Your task to perform on an android device: turn notification dots on Image 0: 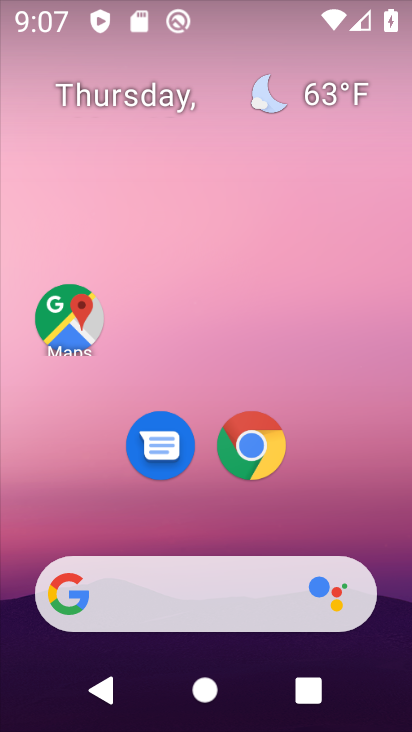
Step 0: drag from (177, 534) to (276, 46)
Your task to perform on an android device: turn notification dots on Image 1: 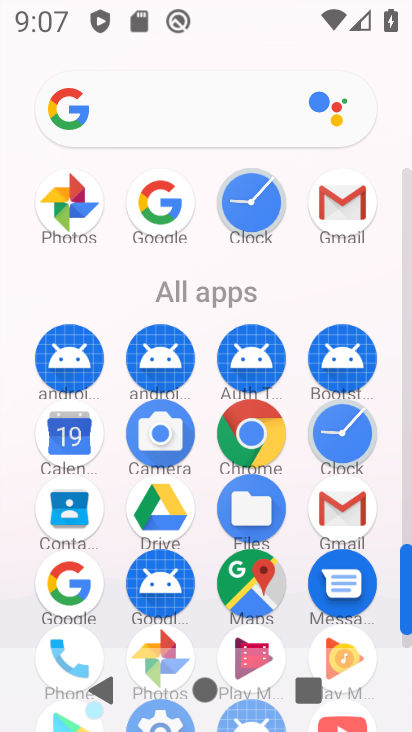
Step 1: drag from (194, 309) to (191, 148)
Your task to perform on an android device: turn notification dots on Image 2: 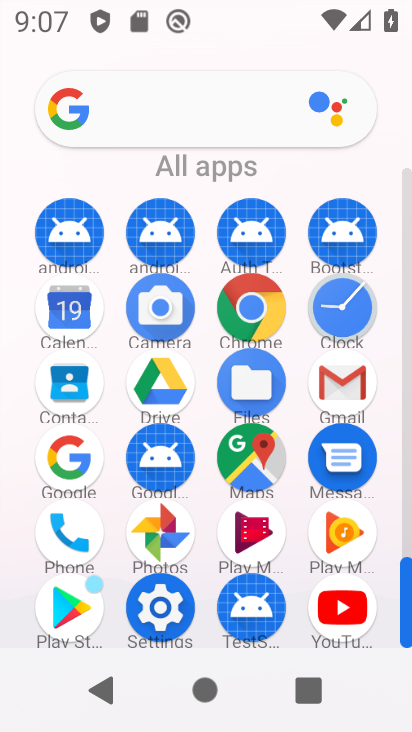
Step 2: click (155, 632)
Your task to perform on an android device: turn notification dots on Image 3: 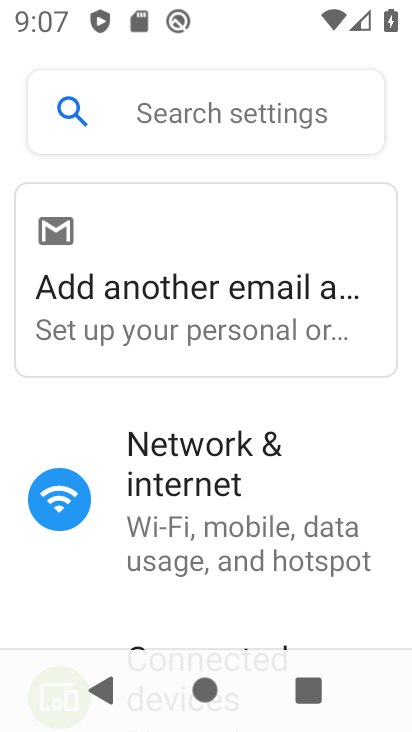
Step 3: drag from (221, 534) to (238, 128)
Your task to perform on an android device: turn notification dots on Image 4: 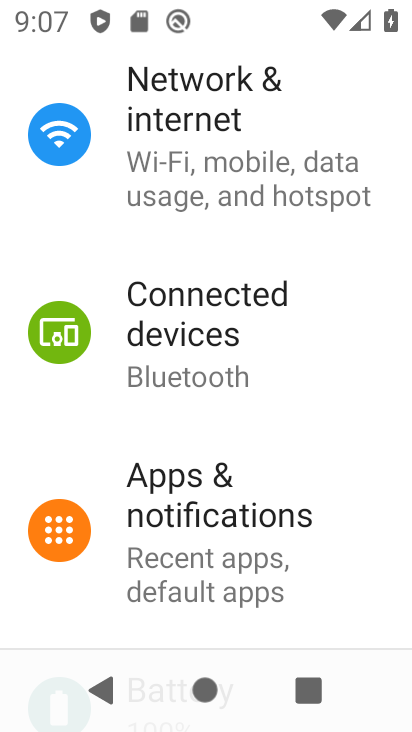
Step 4: click (260, 499)
Your task to perform on an android device: turn notification dots on Image 5: 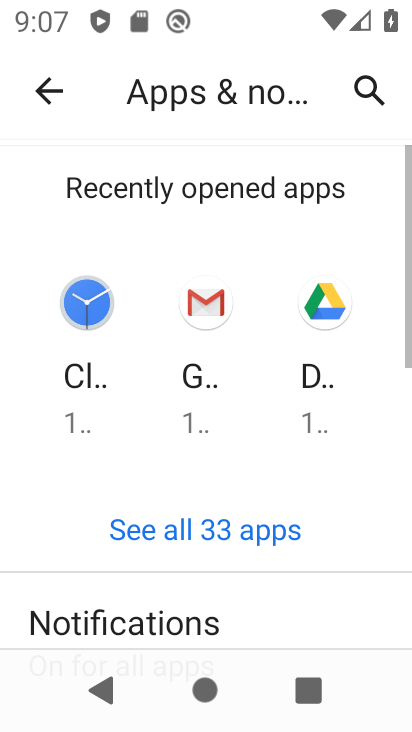
Step 5: click (181, 617)
Your task to perform on an android device: turn notification dots on Image 6: 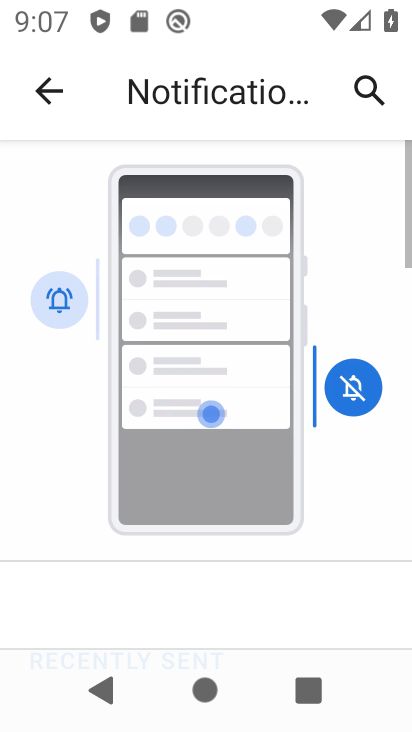
Step 6: drag from (182, 595) to (203, 208)
Your task to perform on an android device: turn notification dots on Image 7: 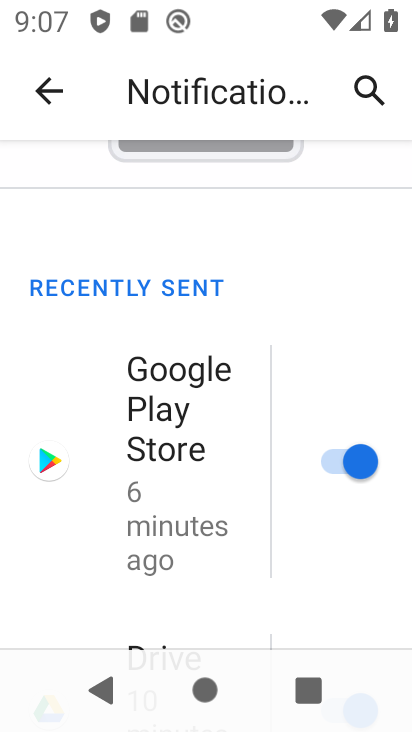
Step 7: drag from (212, 599) to (228, 16)
Your task to perform on an android device: turn notification dots on Image 8: 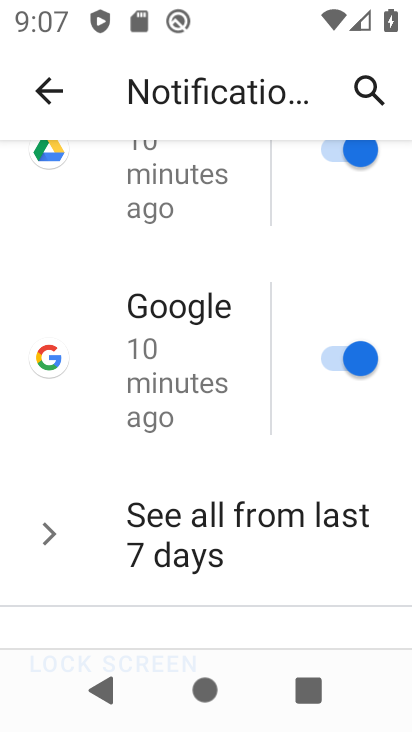
Step 8: drag from (254, 528) to (238, 108)
Your task to perform on an android device: turn notification dots on Image 9: 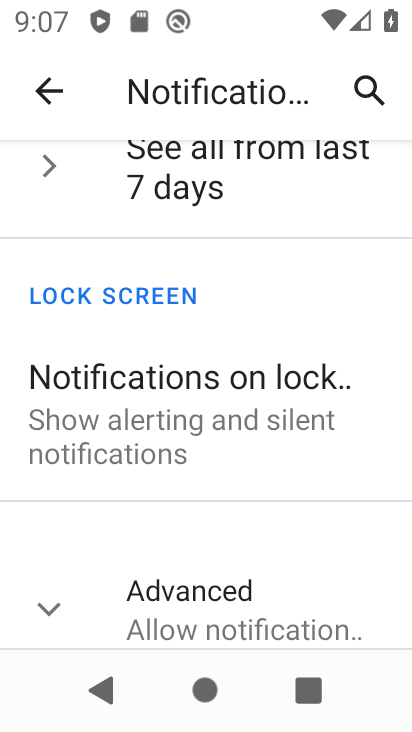
Step 9: click (153, 599)
Your task to perform on an android device: turn notification dots on Image 10: 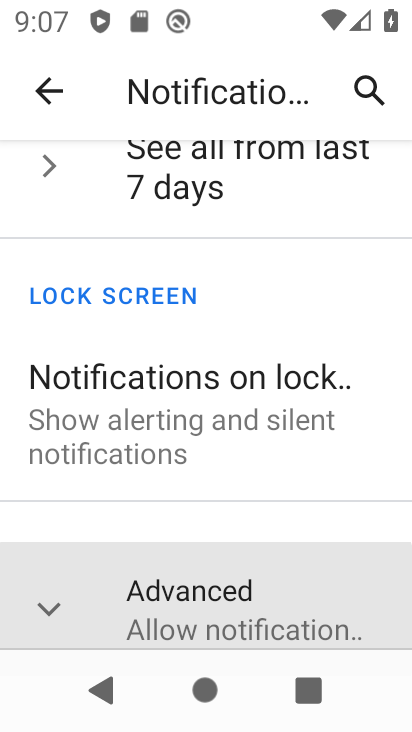
Step 10: task complete